Your task to perform on an android device: Go to display settings Image 0: 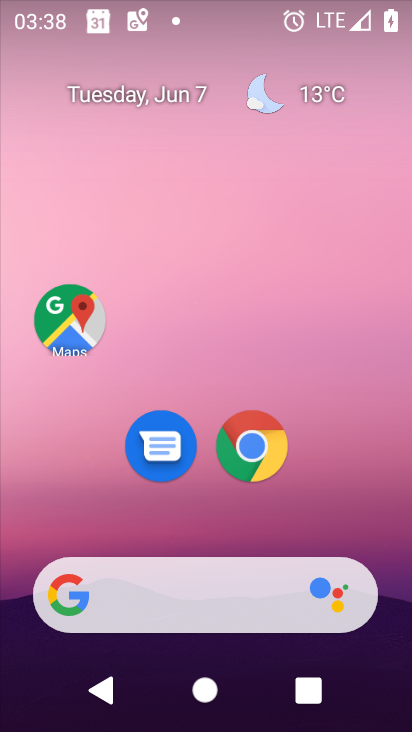
Step 0: drag from (151, 555) to (263, 139)
Your task to perform on an android device: Go to display settings Image 1: 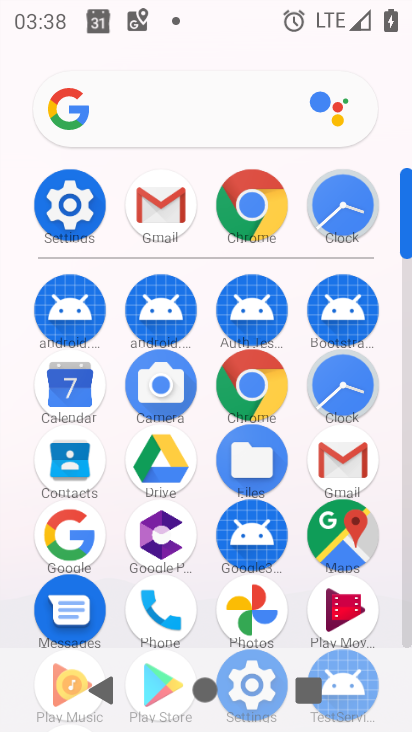
Step 1: click (83, 206)
Your task to perform on an android device: Go to display settings Image 2: 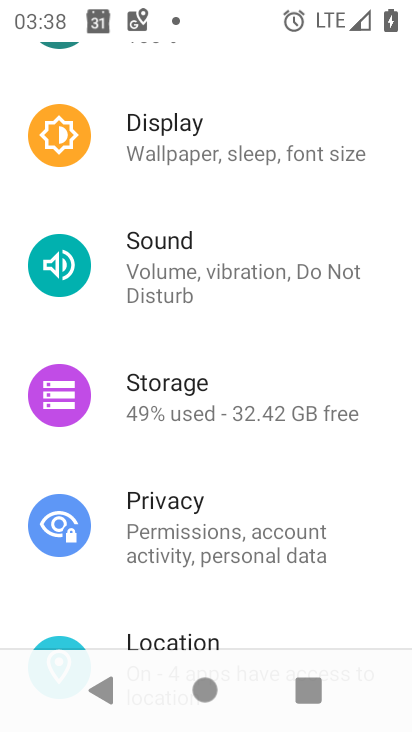
Step 2: click (261, 129)
Your task to perform on an android device: Go to display settings Image 3: 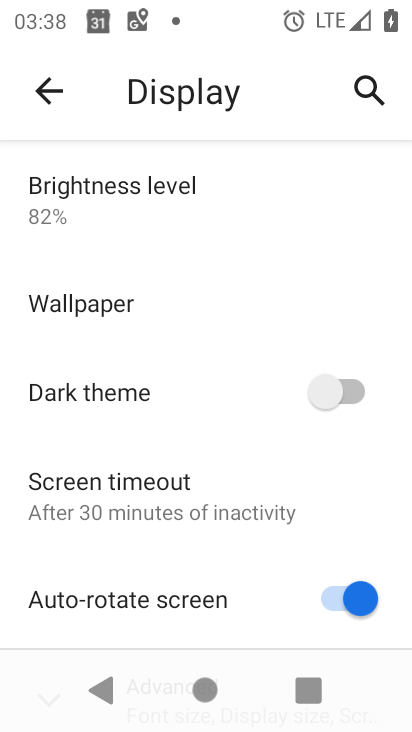
Step 3: task complete